Your task to perform on an android device: Open Google Chrome and open the bookmarks view Image 0: 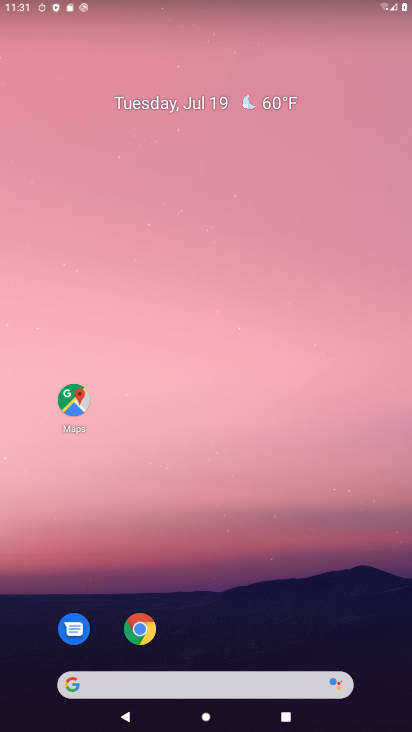
Step 0: click (142, 638)
Your task to perform on an android device: Open Google Chrome and open the bookmarks view Image 1: 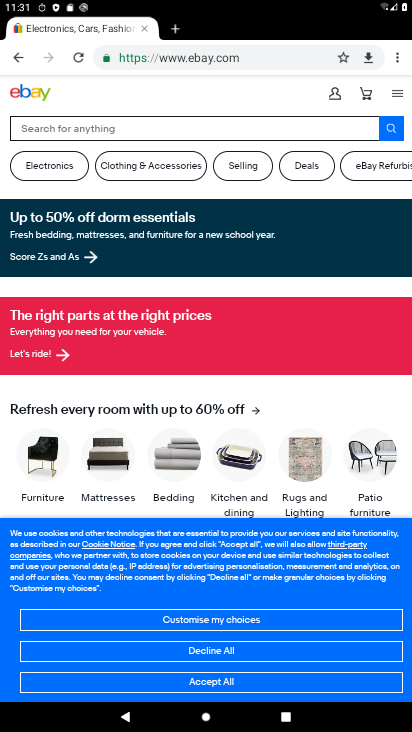
Step 1: click (400, 58)
Your task to perform on an android device: Open Google Chrome and open the bookmarks view Image 2: 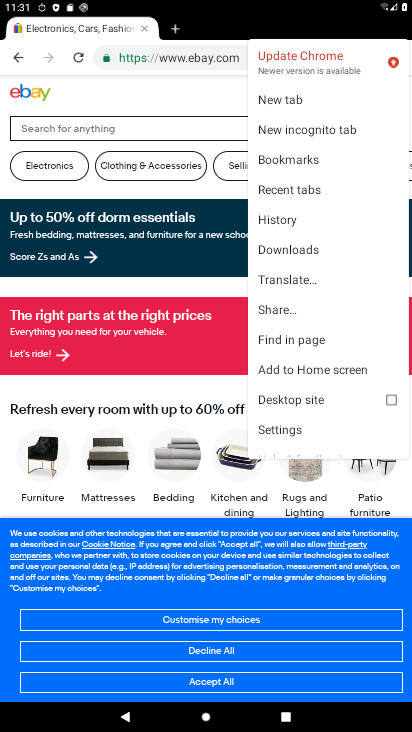
Step 2: click (302, 166)
Your task to perform on an android device: Open Google Chrome and open the bookmarks view Image 3: 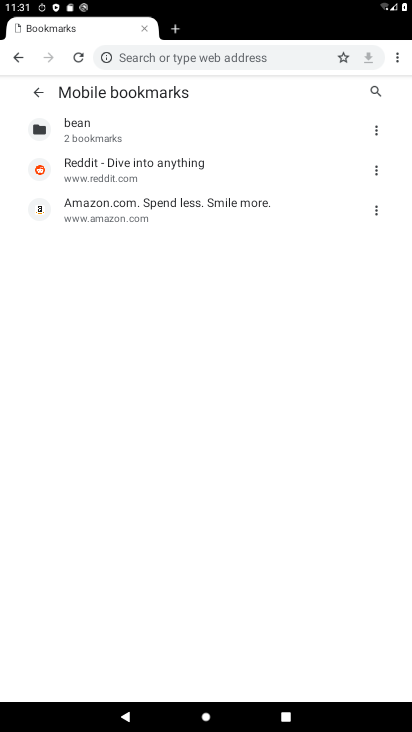
Step 3: task complete